Your task to perform on an android device: Open Yahoo.com Image 0: 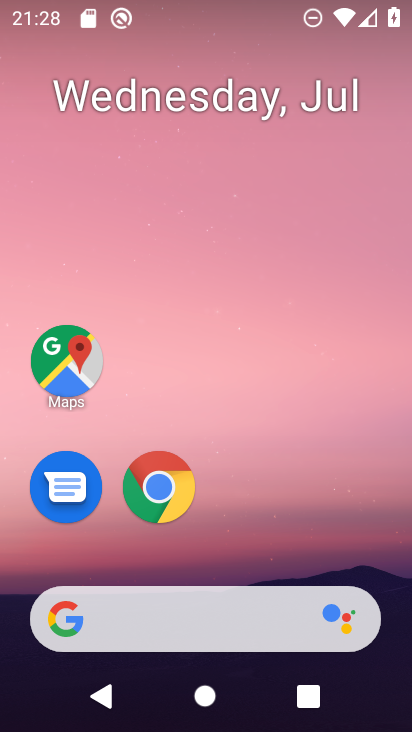
Step 0: drag from (371, 555) to (390, 65)
Your task to perform on an android device: Open Yahoo.com Image 1: 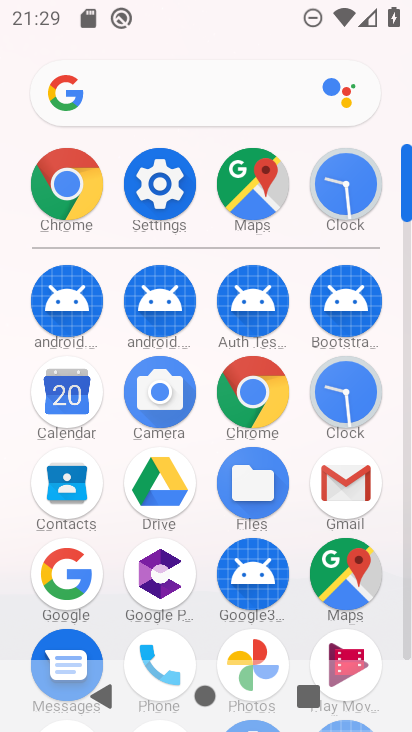
Step 1: click (264, 392)
Your task to perform on an android device: Open Yahoo.com Image 2: 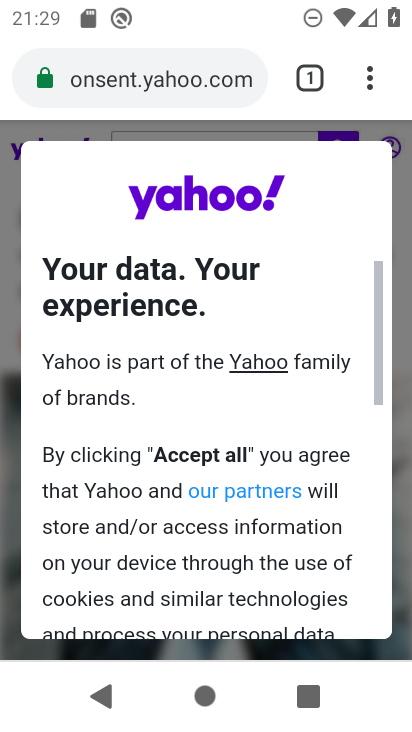
Step 2: task complete